Your task to perform on an android device: toggle wifi Image 0: 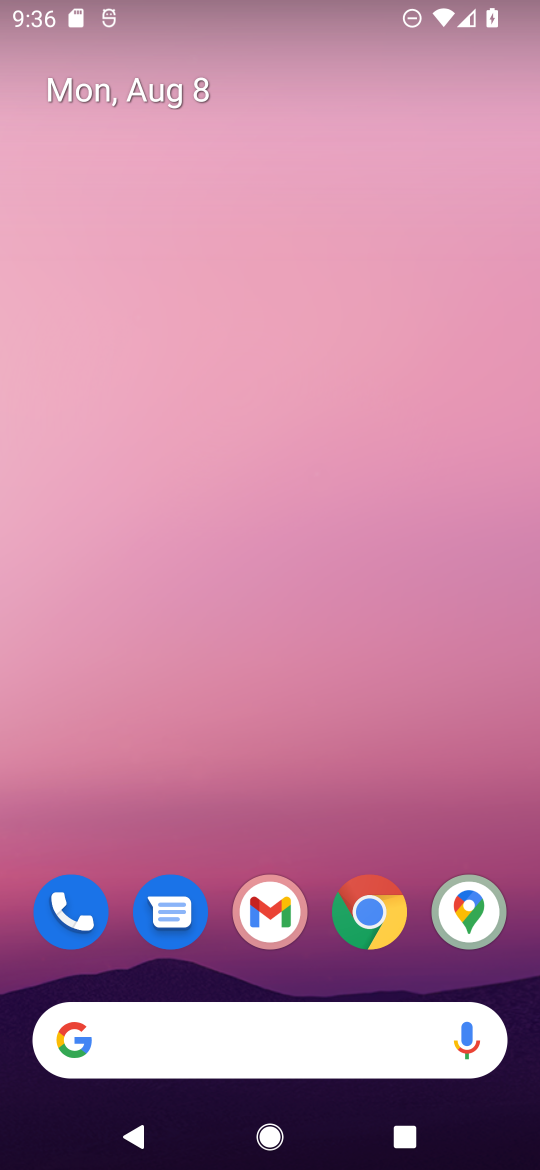
Step 0: drag from (207, 11) to (320, 1142)
Your task to perform on an android device: toggle wifi Image 1: 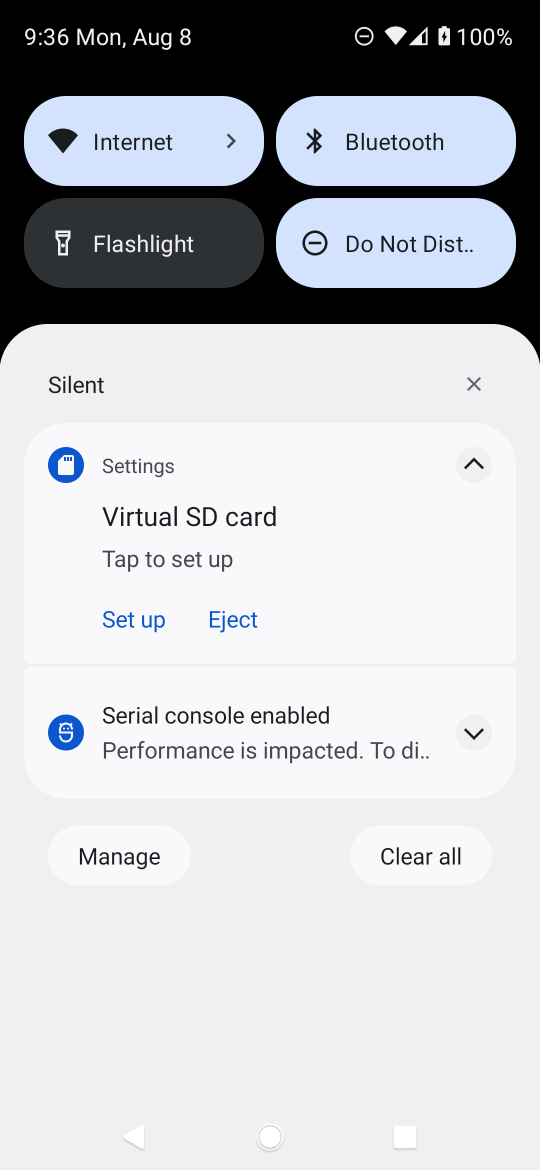
Step 1: click (198, 168)
Your task to perform on an android device: toggle wifi Image 2: 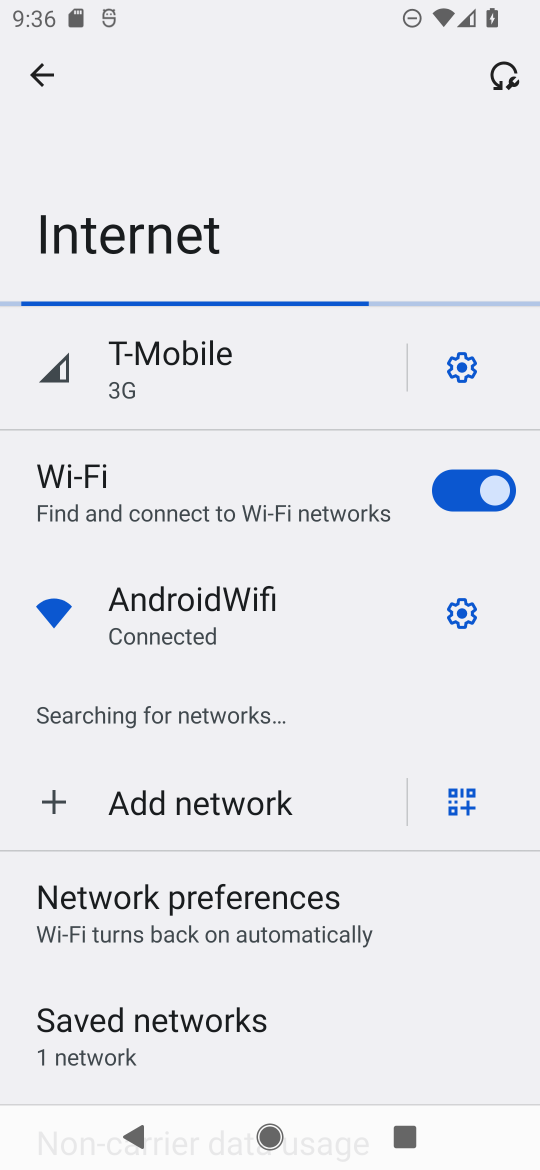
Step 2: click (476, 525)
Your task to perform on an android device: toggle wifi Image 3: 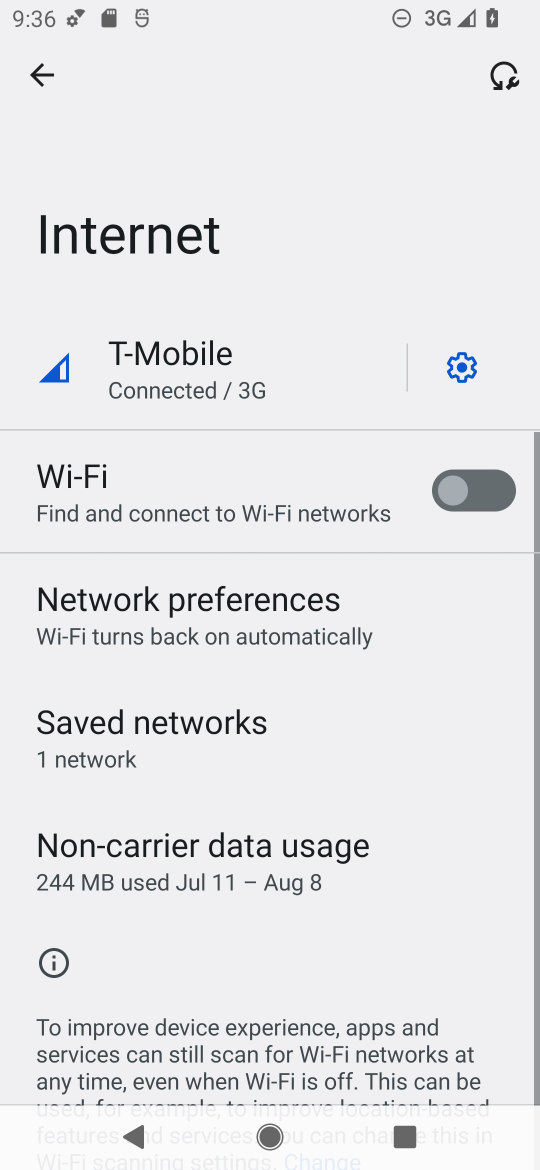
Step 3: task complete